Your task to perform on an android device: empty trash in google photos Image 0: 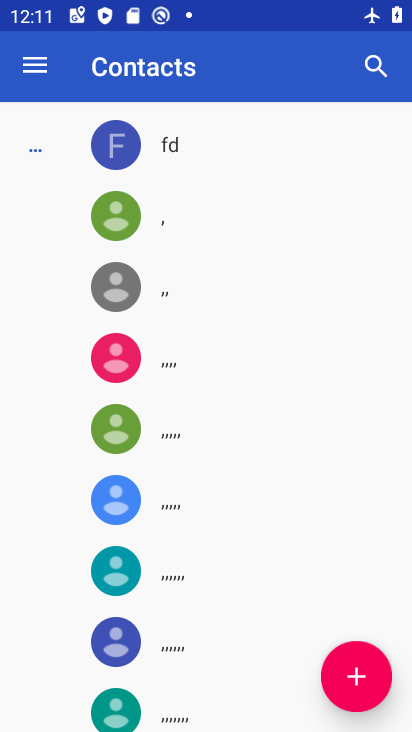
Step 0: press home button
Your task to perform on an android device: empty trash in google photos Image 1: 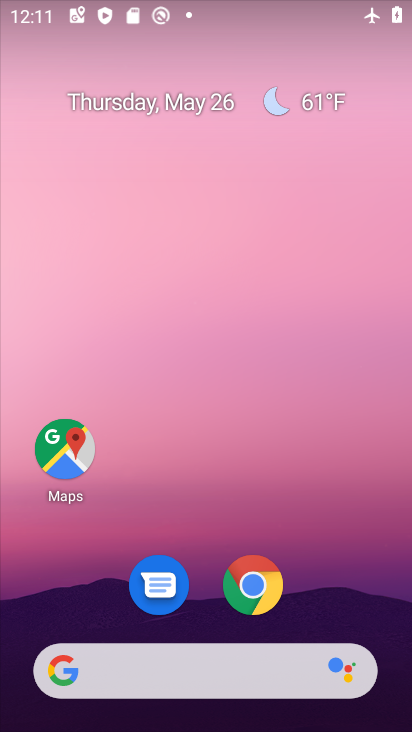
Step 1: drag from (236, 514) to (249, 26)
Your task to perform on an android device: empty trash in google photos Image 2: 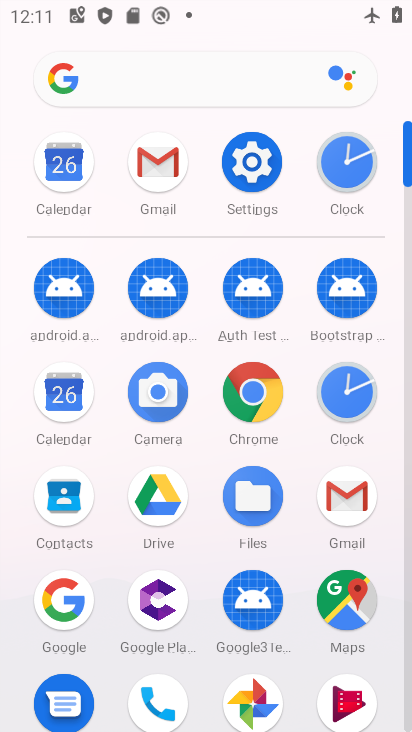
Step 2: click (261, 681)
Your task to perform on an android device: empty trash in google photos Image 3: 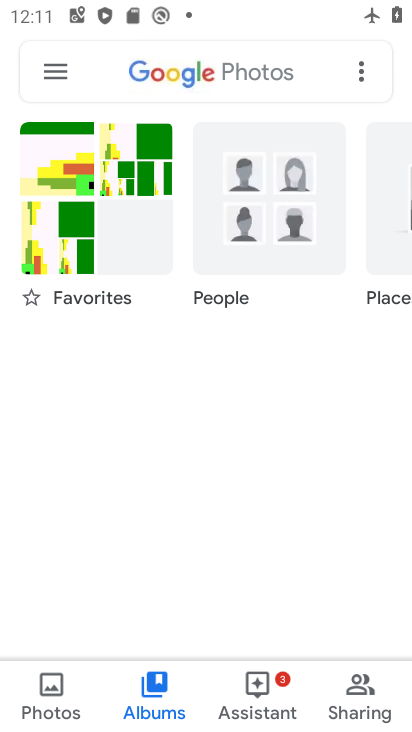
Step 3: click (54, 75)
Your task to perform on an android device: empty trash in google photos Image 4: 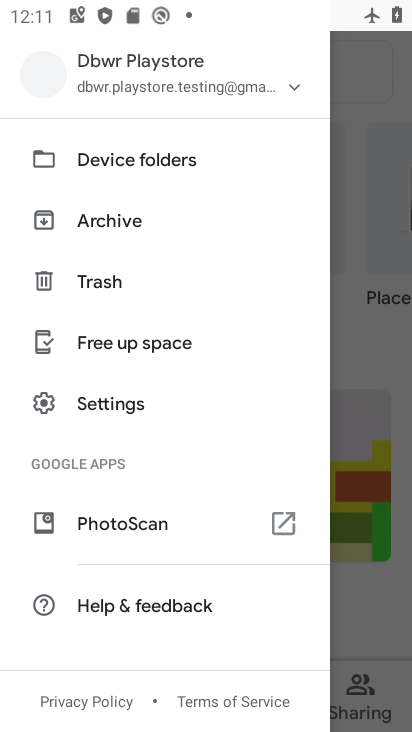
Step 4: click (106, 283)
Your task to perform on an android device: empty trash in google photos Image 5: 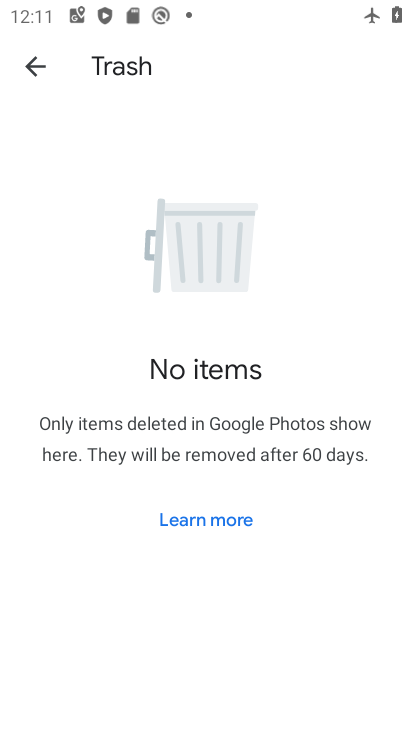
Step 5: task complete